Your task to perform on an android device: open a new tab in the chrome app Image 0: 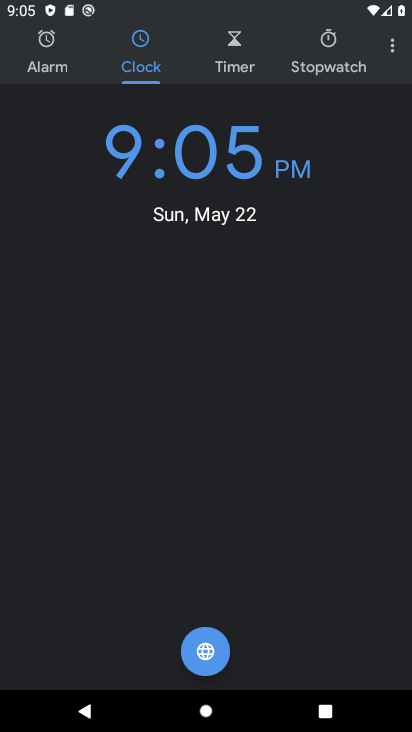
Step 0: press home button
Your task to perform on an android device: open a new tab in the chrome app Image 1: 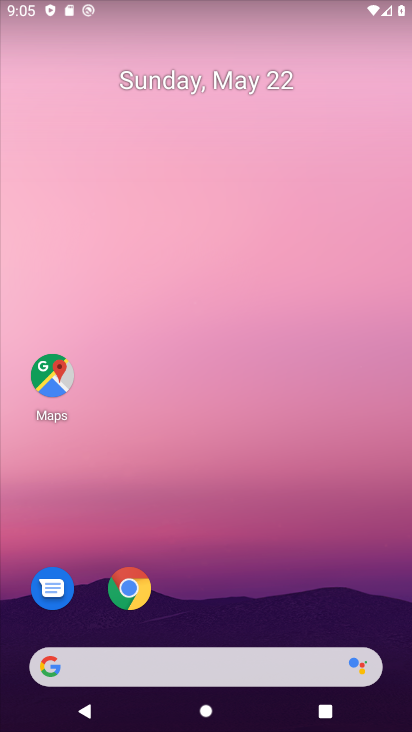
Step 1: click (128, 584)
Your task to perform on an android device: open a new tab in the chrome app Image 2: 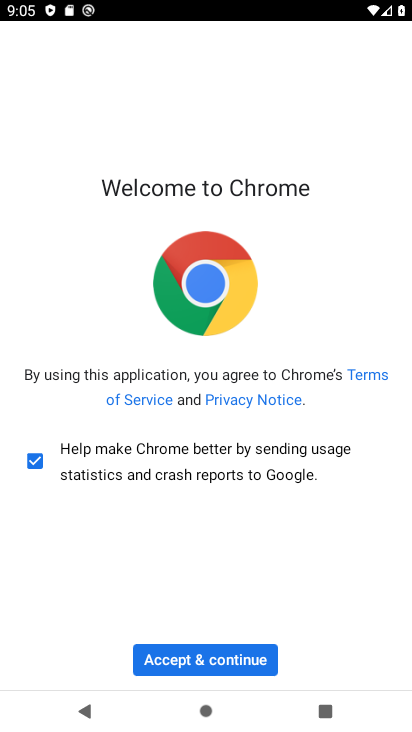
Step 2: click (255, 656)
Your task to perform on an android device: open a new tab in the chrome app Image 3: 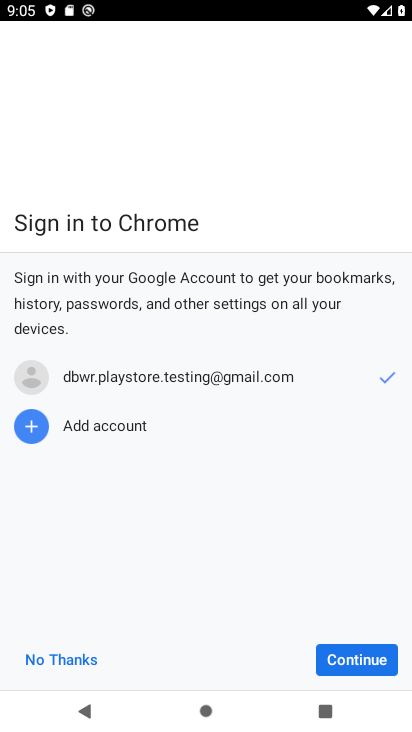
Step 3: click (255, 656)
Your task to perform on an android device: open a new tab in the chrome app Image 4: 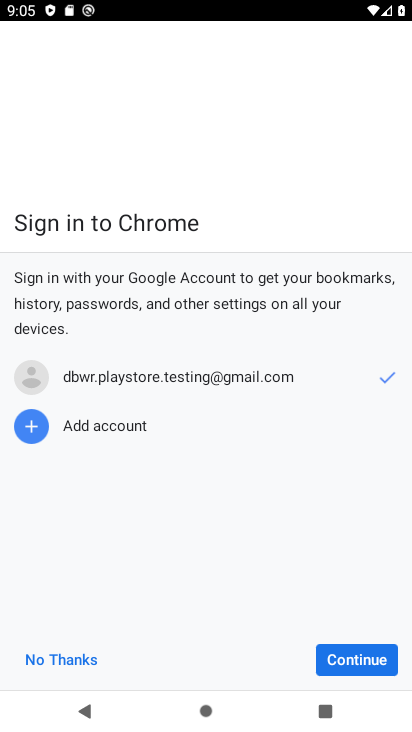
Step 4: click (339, 659)
Your task to perform on an android device: open a new tab in the chrome app Image 5: 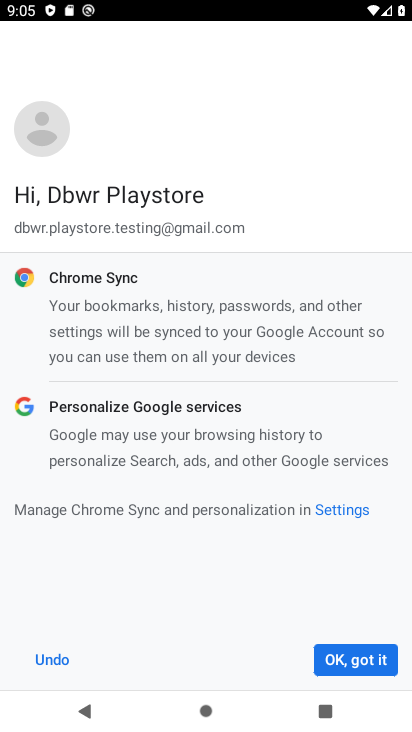
Step 5: click (351, 662)
Your task to perform on an android device: open a new tab in the chrome app Image 6: 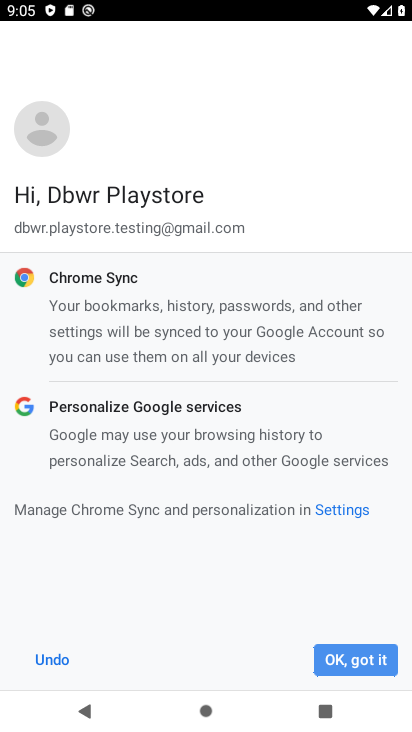
Step 6: click (351, 662)
Your task to perform on an android device: open a new tab in the chrome app Image 7: 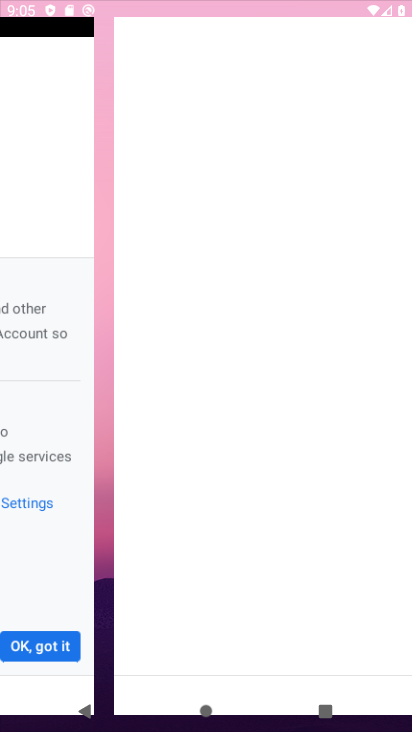
Step 7: click (351, 662)
Your task to perform on an android device: open a new tab in the chrome app Image 8: 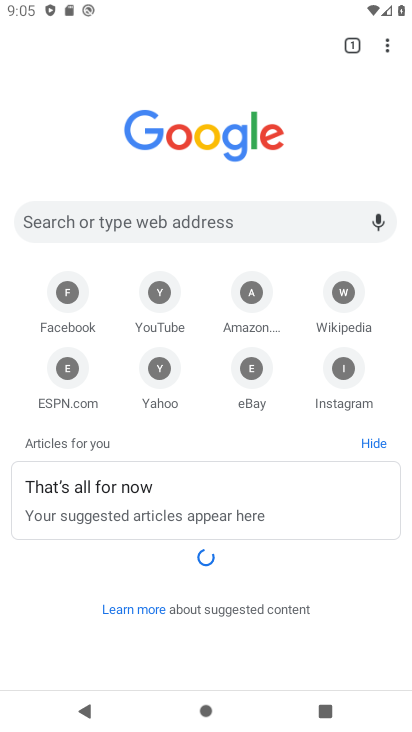
Step 8: task complete